Your task to perform on an android device: turn off sleep mode Image 0: 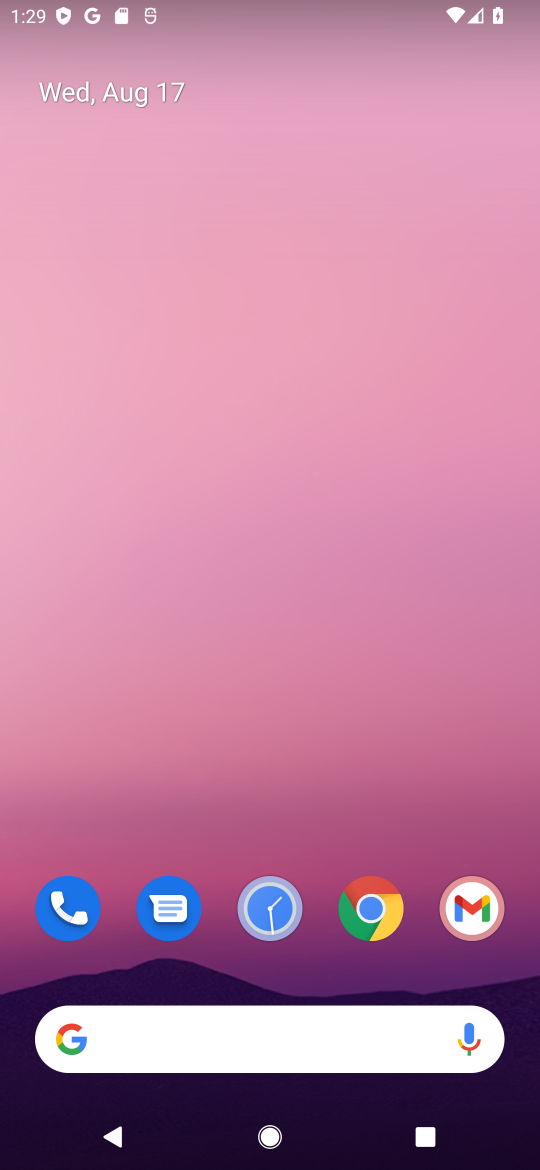
Step 0: press home button
Your task to perform on an android device: turn off sleep mode Image 1: 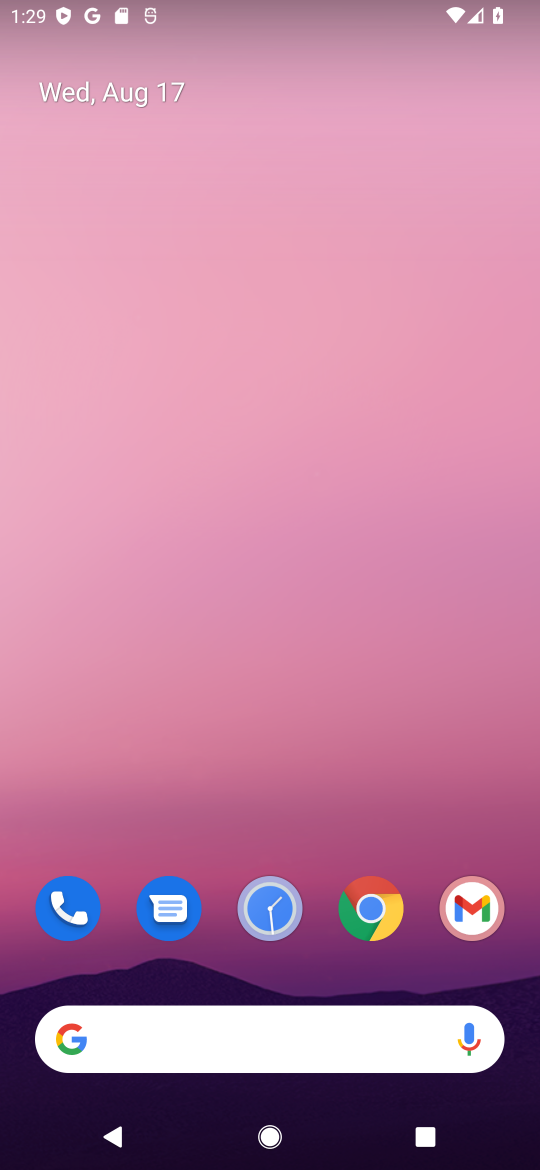
Step 1: drag from (321, 972) to (412, 158)
Your task to perform on an android device: turn off sleep mode Image 2: 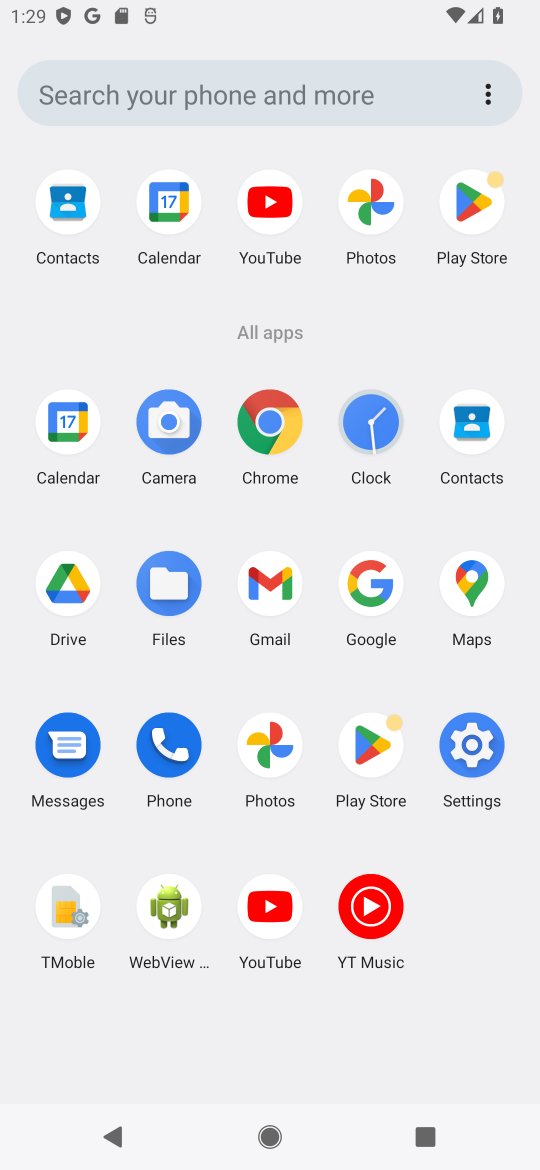
Step 2: click (473, 742)
Your task to perform on an android device: turn off sleep mode Image 3: 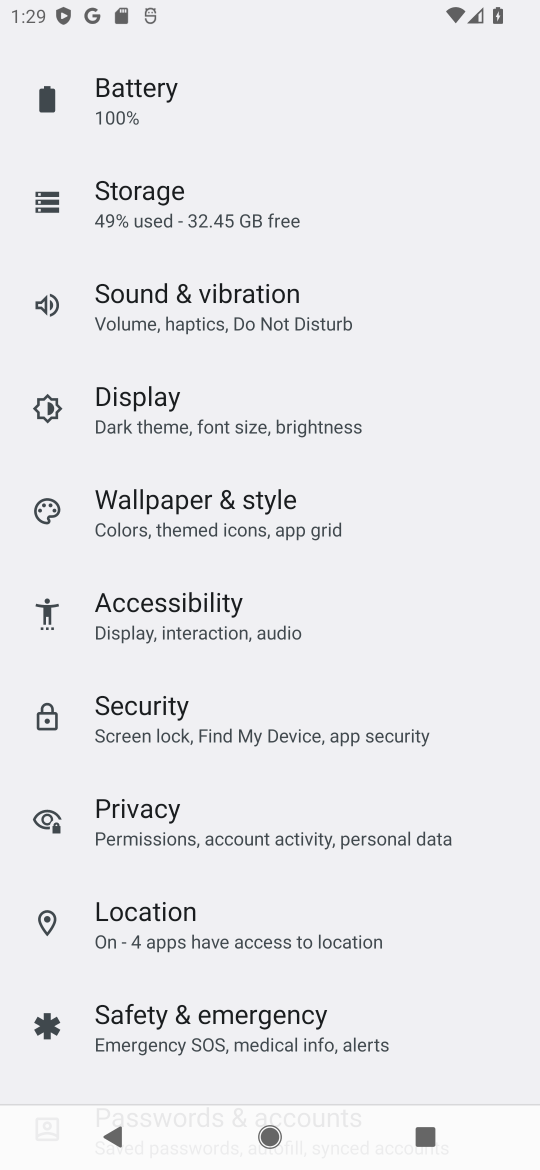
Step 3: click (125, 421)
Your task to perform on an android device: turn off sleep mode Image 4: 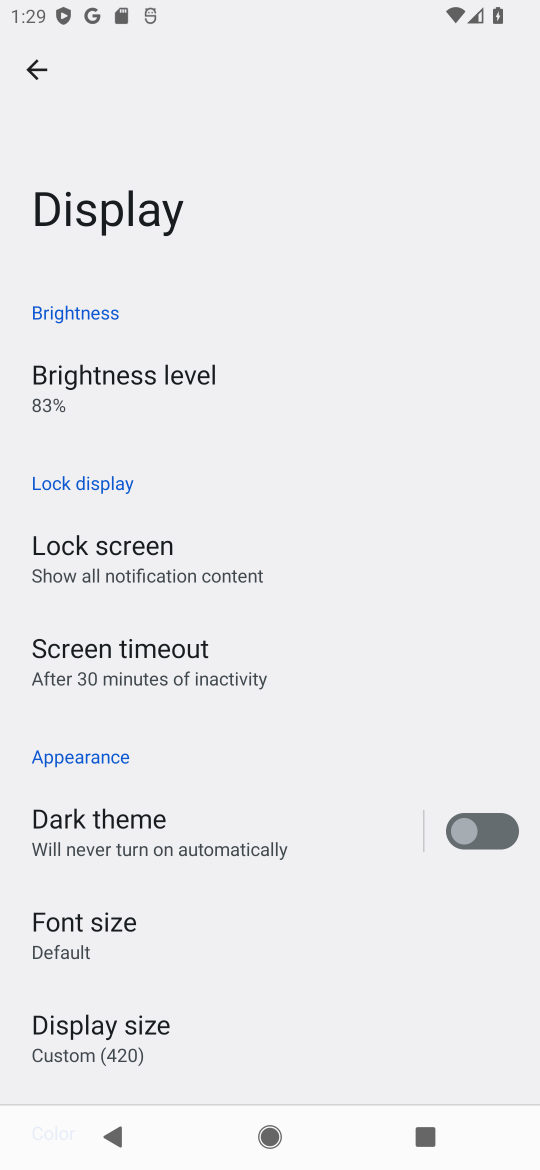
Step 4: task complete